Your task to perform on an android device: add a contact in the contacts app Image 0: 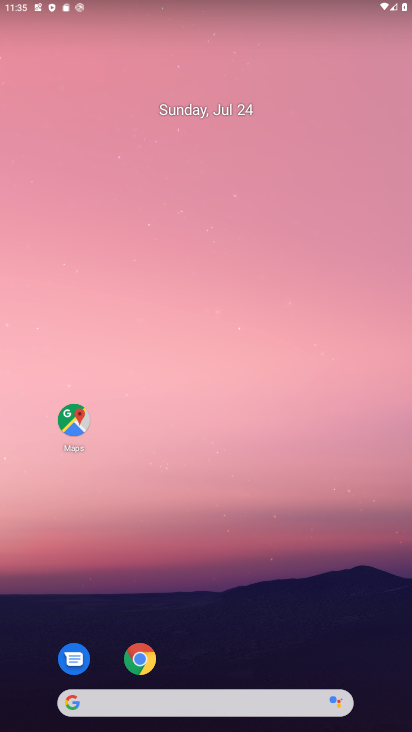
Step 0: drag from (40, 688) to (293, 299)
Your task to perform on an android device: add a contact in the contacts app Image 1: 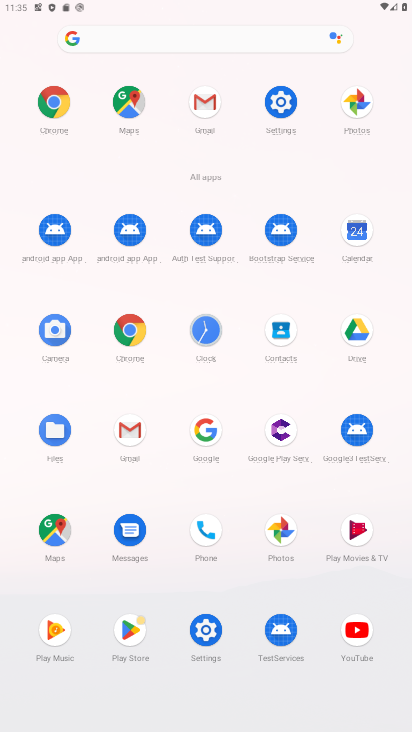
Step 1: click (206, 533)
Your task to perform on an android device: add a contact in the contacts app Image 2: 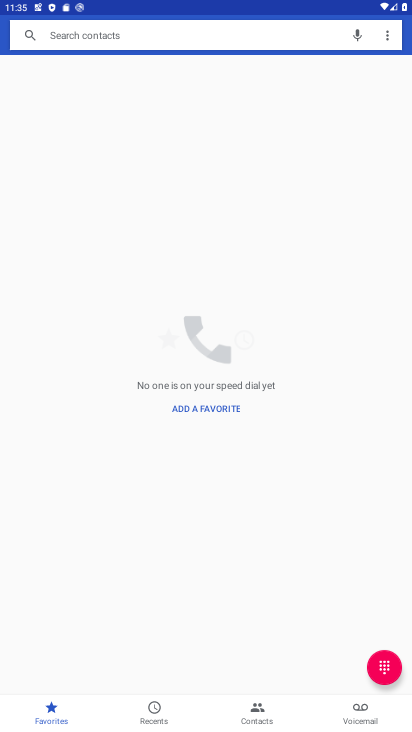
Step 2: click (258, 712)
Your task to perform on an android device: add a contact in the contacts app Image 3: 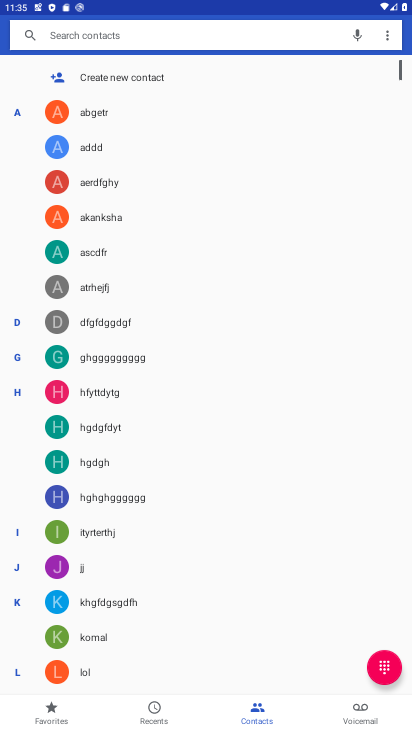
Step 3: click (147, 83)
Your task to perform on an android device: add a contact in the contacts app Image 4: 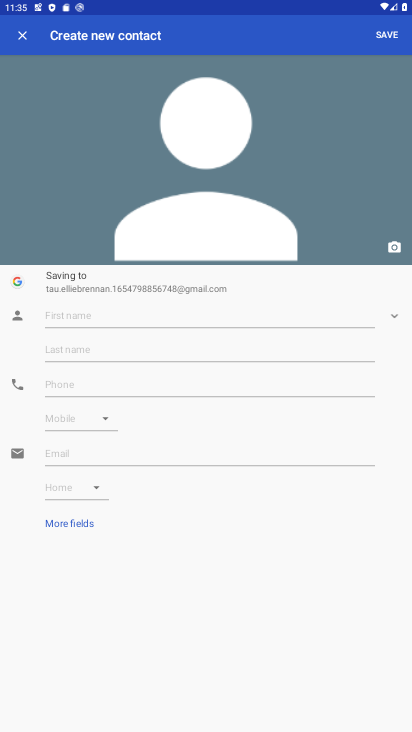
Step 4: click (71, 317)
Your task to perform on an android device: add a contact in the contacts app Image 5: 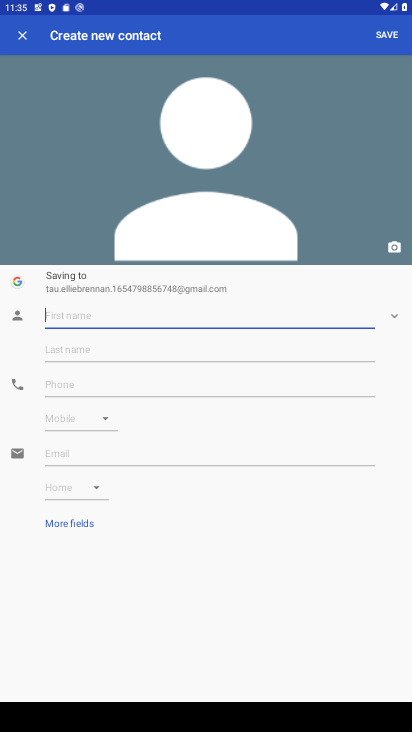
Step 5: type "gfjrtyre"
Your task to perform on an android device: add a contact in the contacts app Image 6: 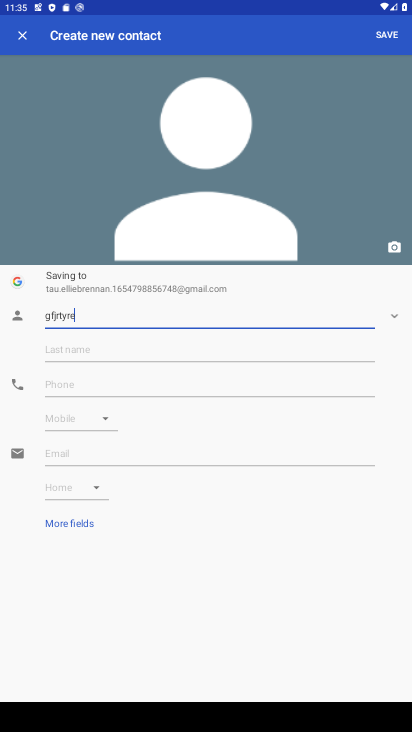
Step 6: type ""
Your task to perform on an android device: add a contact in the contacts app Image 7: 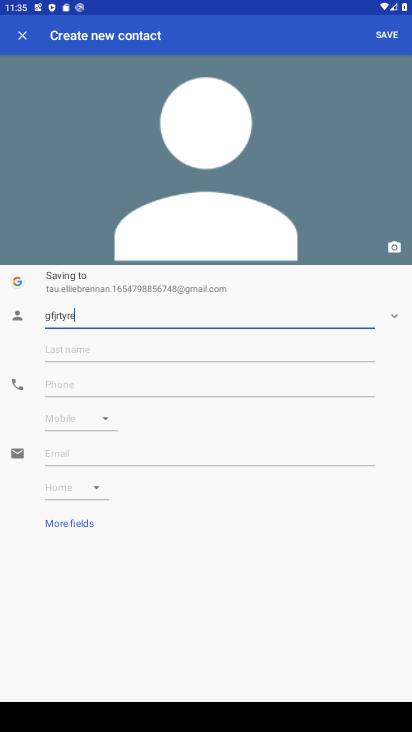
Step 7: click (386, 35)
Your task to perform on an android device: add a contact in the contacts app Image 8: 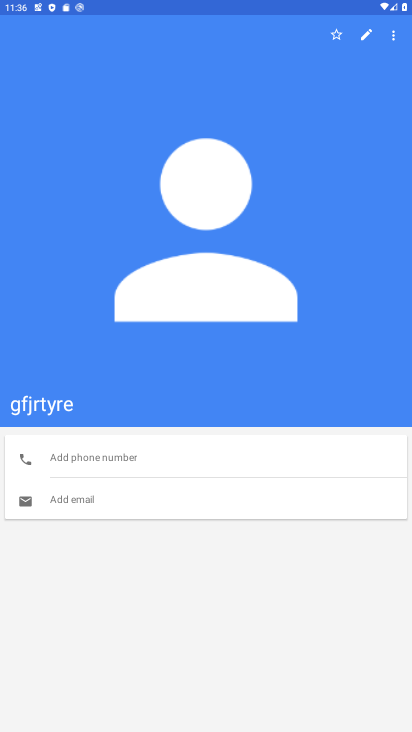
Step 8: task complete